Your task to perform on an android device: turn off location history Image 0: 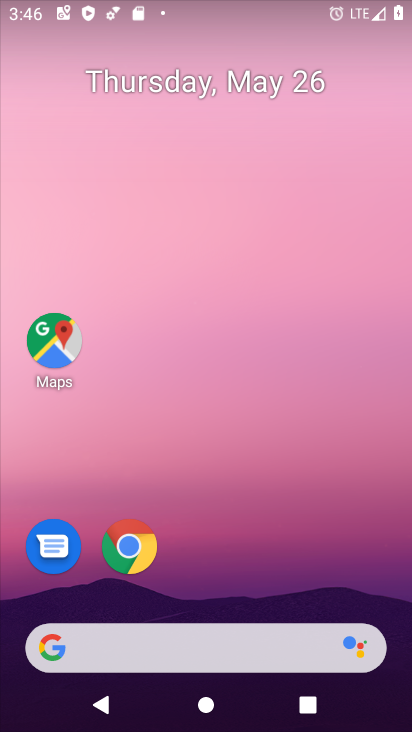
Step 0: drag from (290, 466) to (314, 86)
Your task to perform on an android device: turn off location history Image 1: 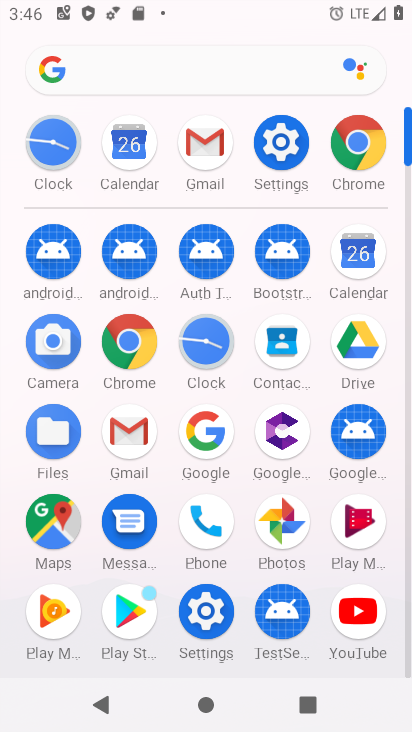
Step 1: click (282, 139)
Your task to perform on an android device: turn off location history Image 2: 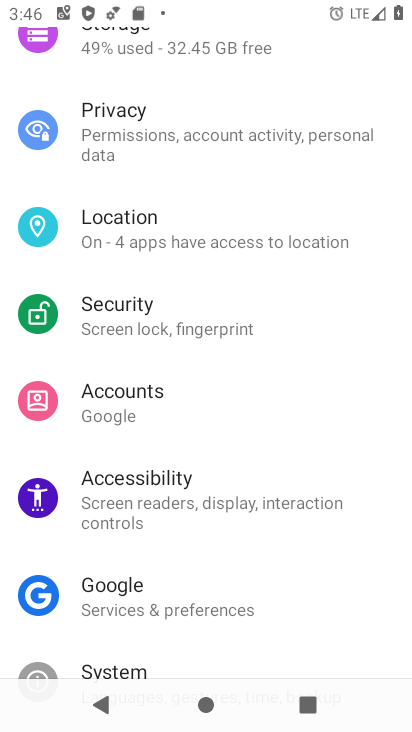
Step 2: click (141, 229)
Your task to perform on an android device: turn off location history Image 3: 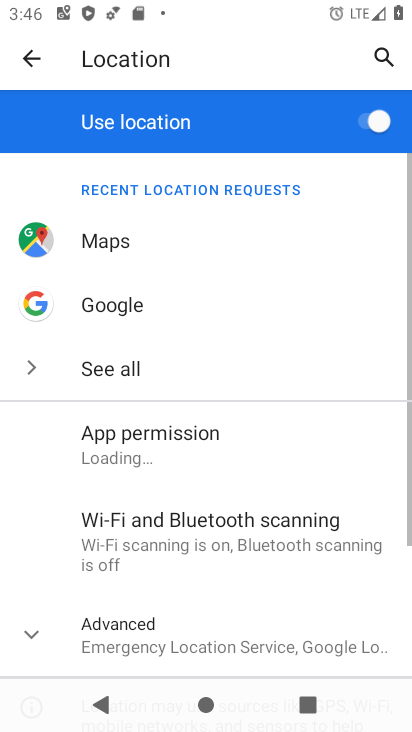
Step 3: drag from (183, 594) to (257, 185)
Your task to perform on an android device: turn off location history Image 4: 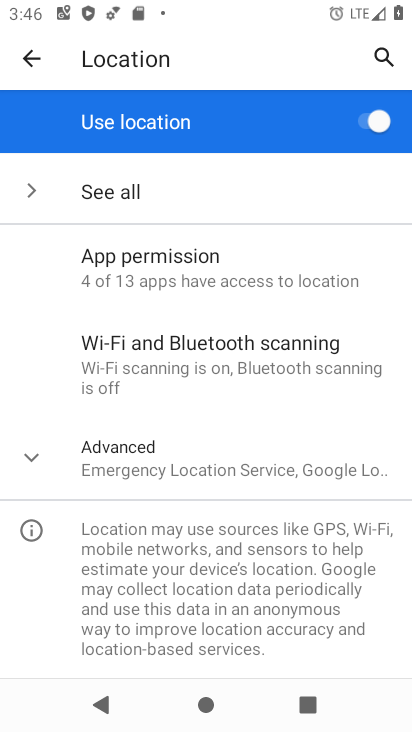
Step 4: click (211, 459)
Your task to perform on an android device: turn off location history Image 5: 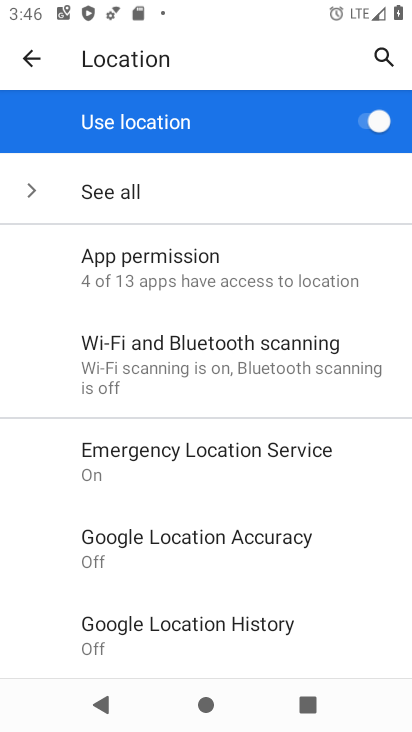
Step 5: click (184, 622)
Your task to perform on an android device: turn off location history Image 6: 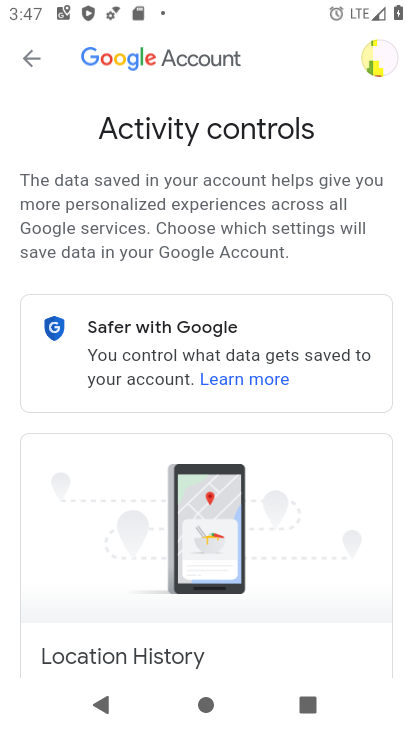
Step 6: drag from (182, 595) to (212, 175)
Your task to perform on an android device: turn off location history Image 7: 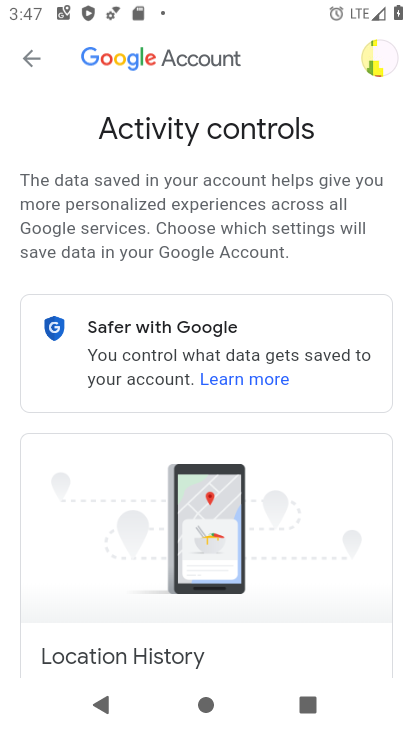
Step 7: drag from (223, 587) to (245, 245)
Your task to perform on an android device: turn off location history Image 8: 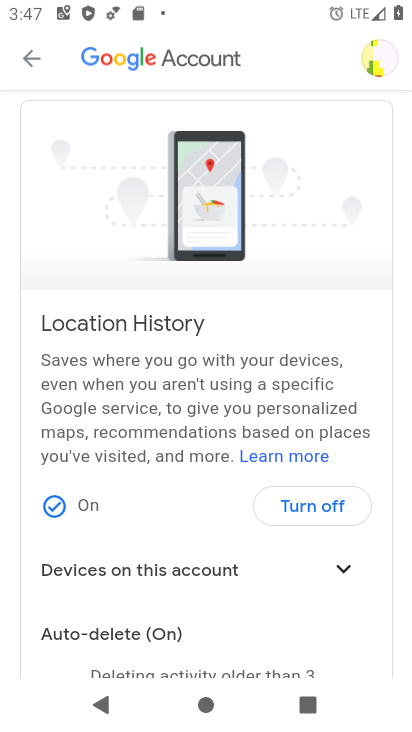
Step 8: click (310, 514)
Your task to perform on an android device: turn off location history Image 9: 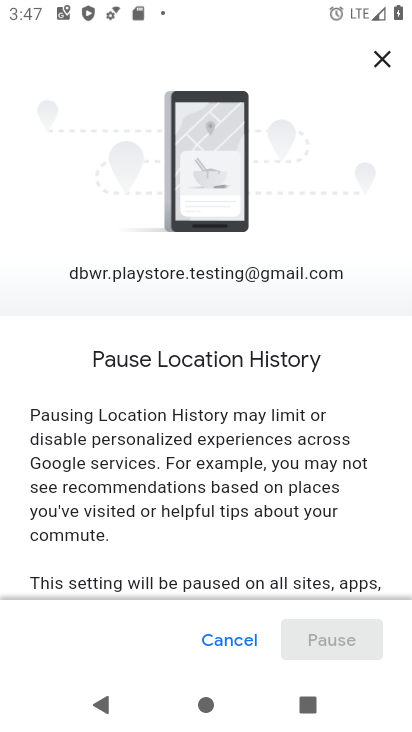
Step 9: drag from (221, 562) to (238, 15)
Your task to perform on an android device: turn off location history Image 10: 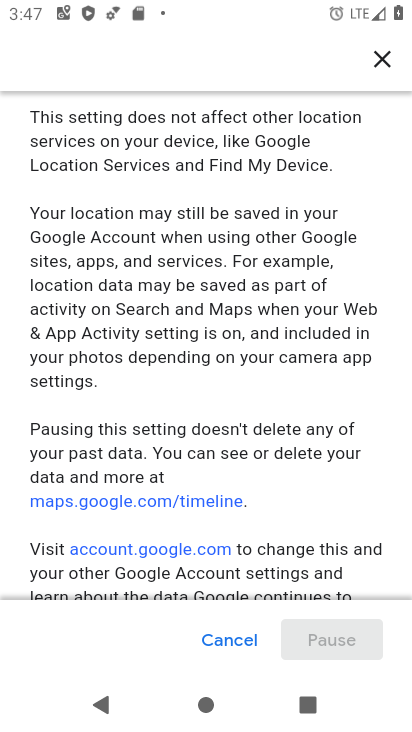
Step 10: drag from (187, 551) to (261, 21)
Your task to perform on an android device: turn off location history Image 11: 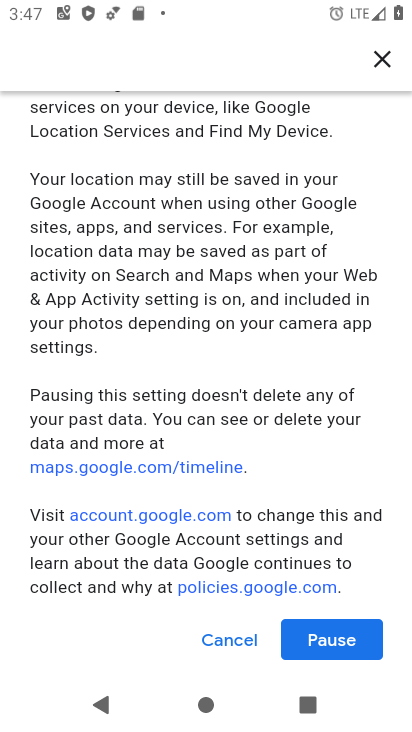
Step 11: click (330, 646)
Your task to perform on an android device: turn off location history Image 12: 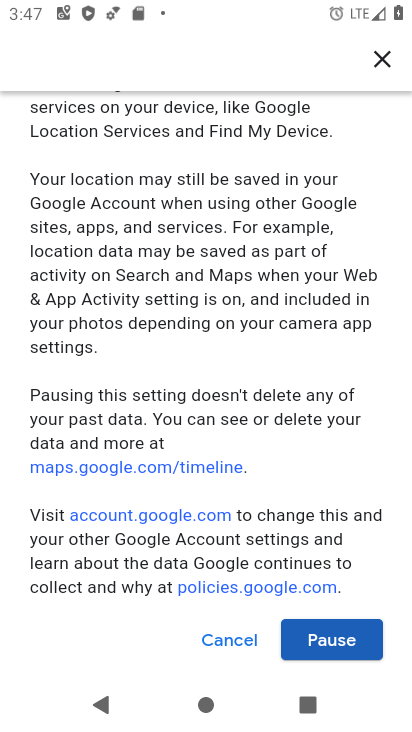
Step 12: click (330, 646)
Your task to perform on an android device: turn off location history Image 13: 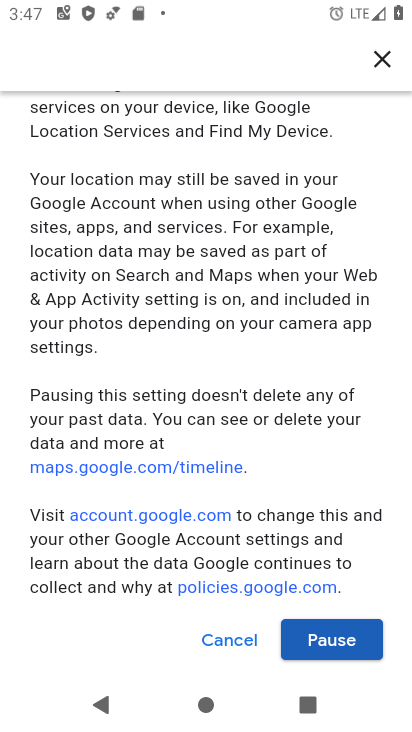
Step 13: click (335, 637)
Your task to perform on an android device: turn off location history Image 14: 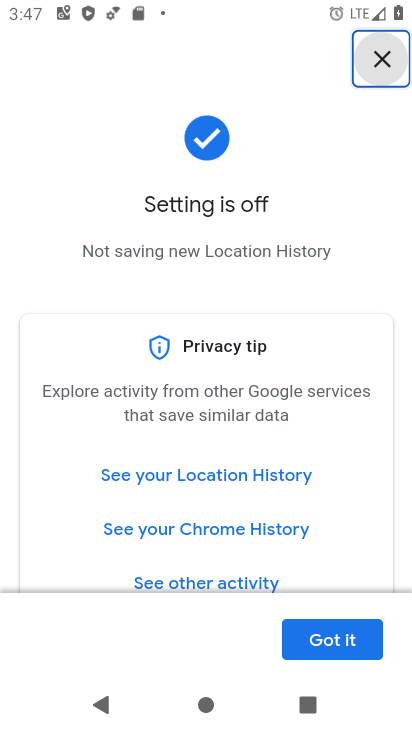
Step 14: task complete